Your task to perform on an android device: turn on the 24-hour format for clock Image 0: 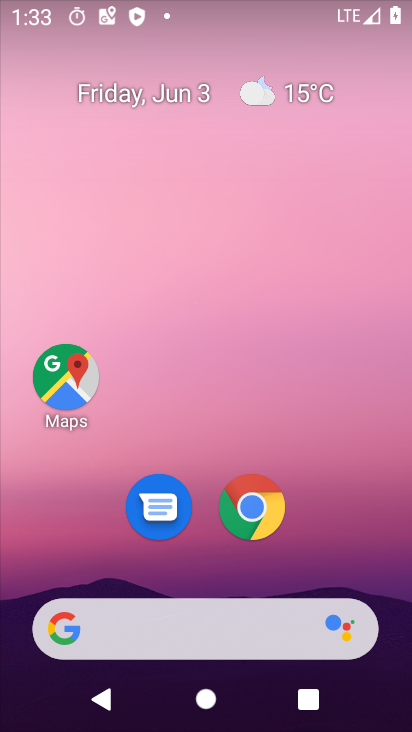
Step 0: drag from (398, 640) to (278, 37)
Your task to perform on an android device: turn on the 24-hour format for clock Image 1: 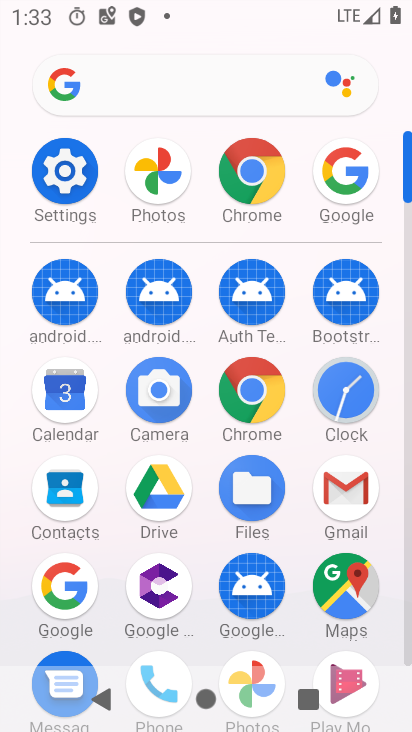
Step 1: click (318, 387)
Your task to perform on an android device: turn on the 24-hour format for clock Image 2: 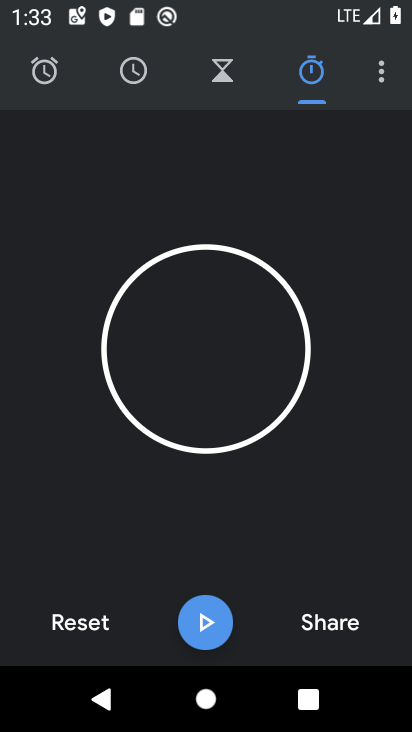
Step 2: click (386, 73)
Your task to perform on an android device: turn on the 24-hour format for clock Image 3: 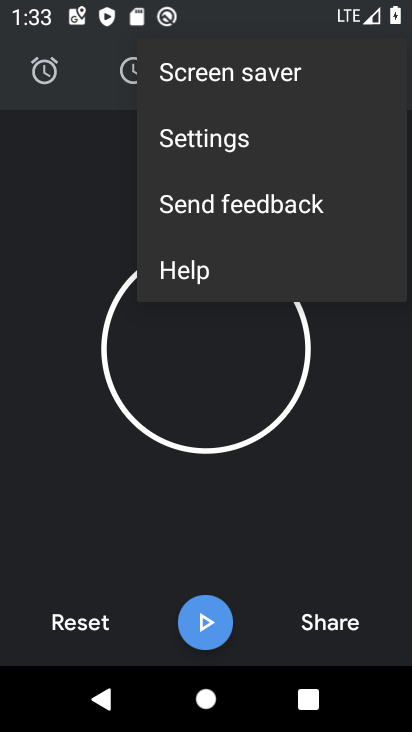
Step 3: click (241, 136)
Your task to perform on an android device: turn on the 24-hour format for clock Image 4: 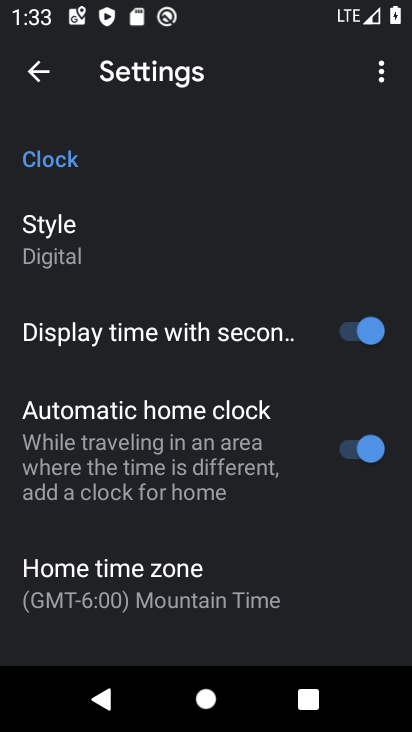
Step 4: drag from (227, 625) to (259, 190)
Your task to perform on an android device: turn on the 24-hour format for clock Image 5: 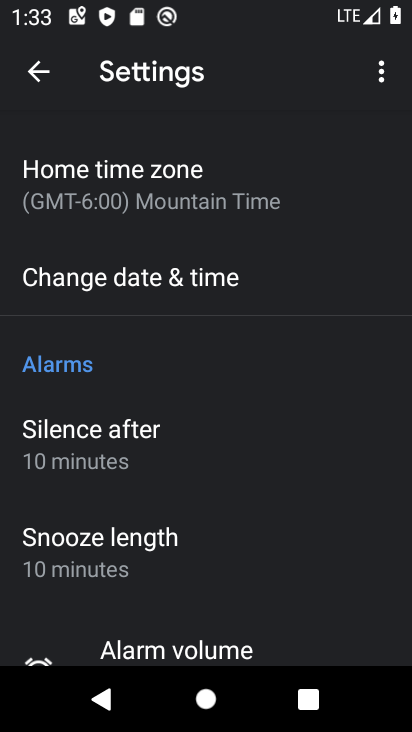
Step 5: click (146, 307)
Your task to perform on an android device: turn on the 24-hour format for clock Image 6: 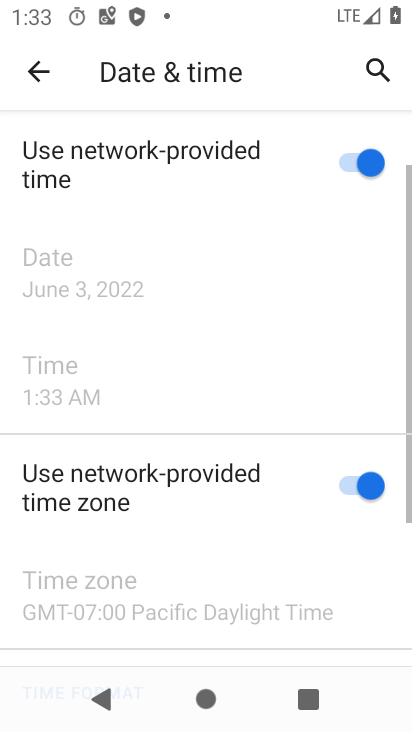
Step 6: task complete